Your task to perform on an android device: open app "Gmail" (install if not already installed) and go to login screen Image 0: 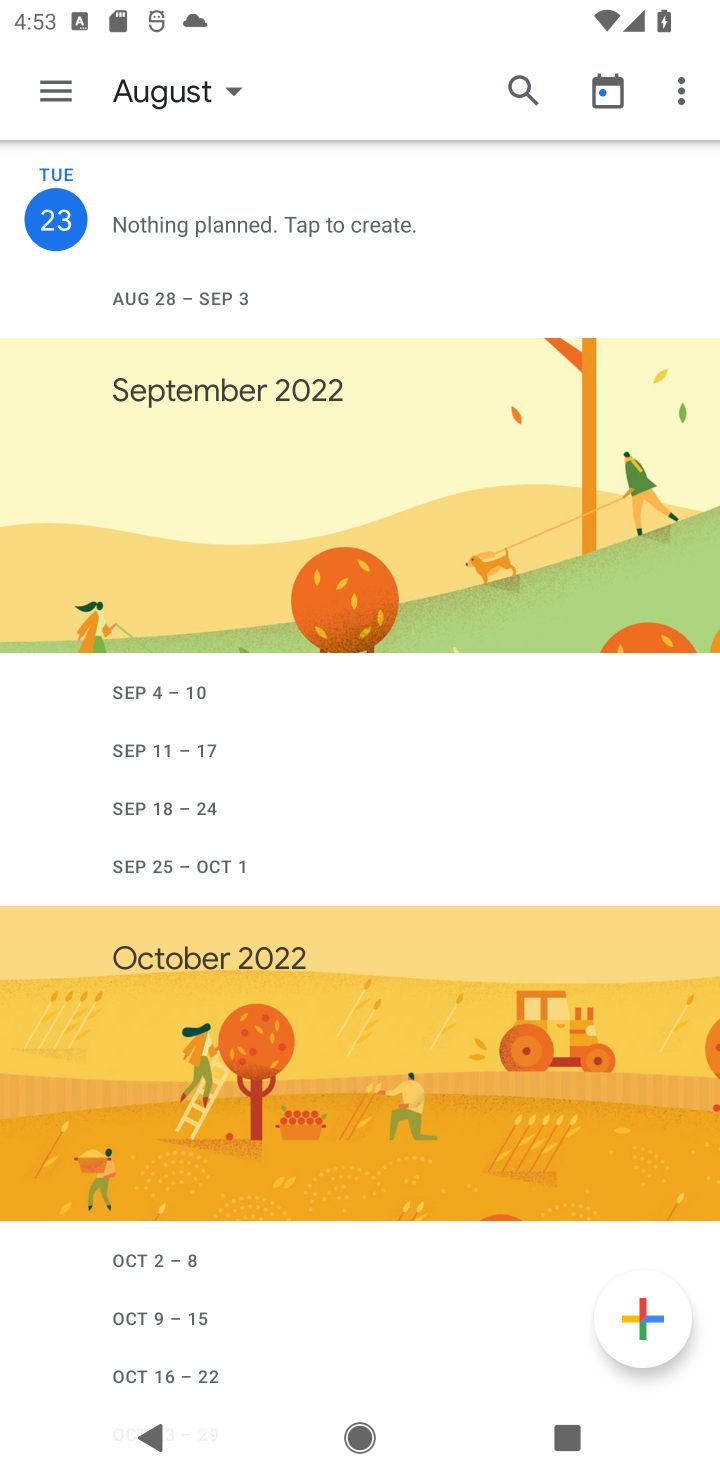
Step 0: press home button
Your task to perform on an android device: open app "Gmail" (install if not already installed) and go to login screen Image 1: 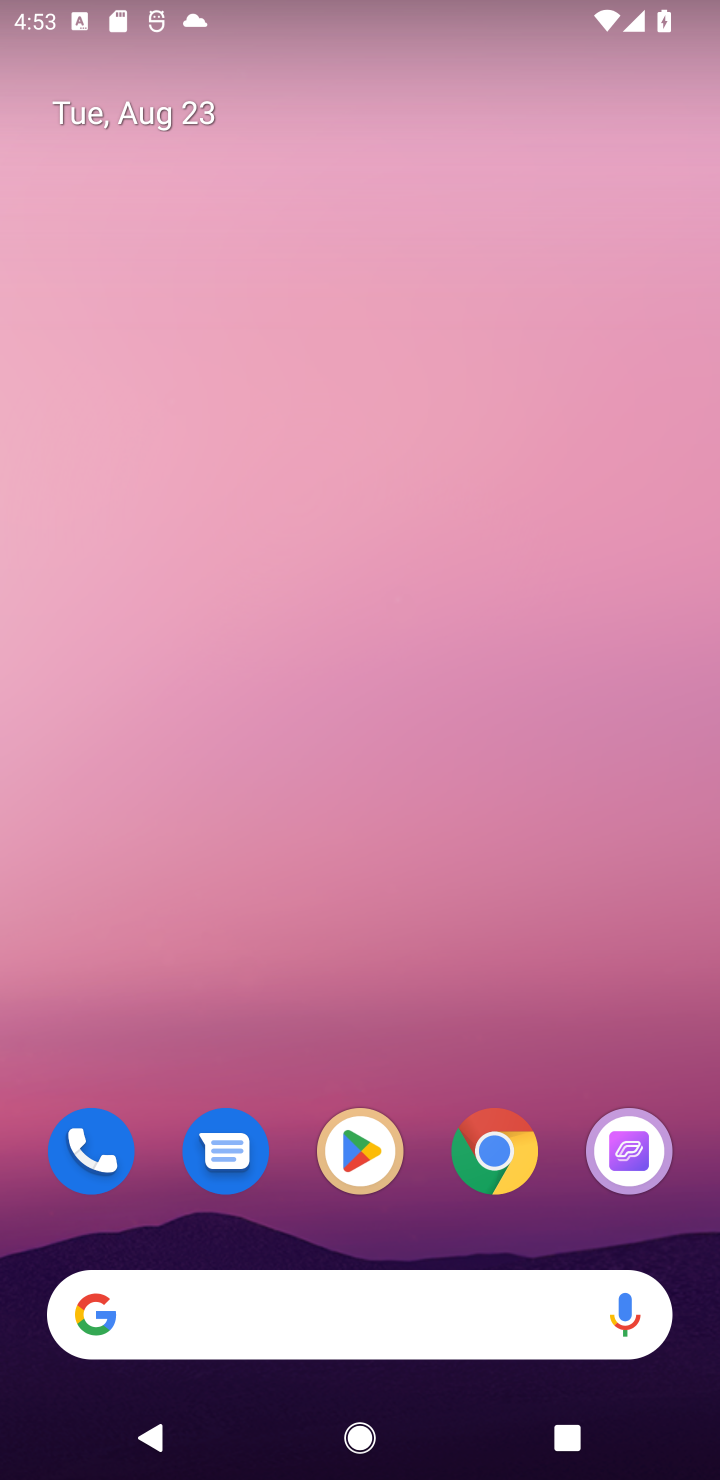
Step 1: click (362, 1162)
Your task to perform on an android device: open app "Gmail" (install if not already installed) and go to login screen Image 2: 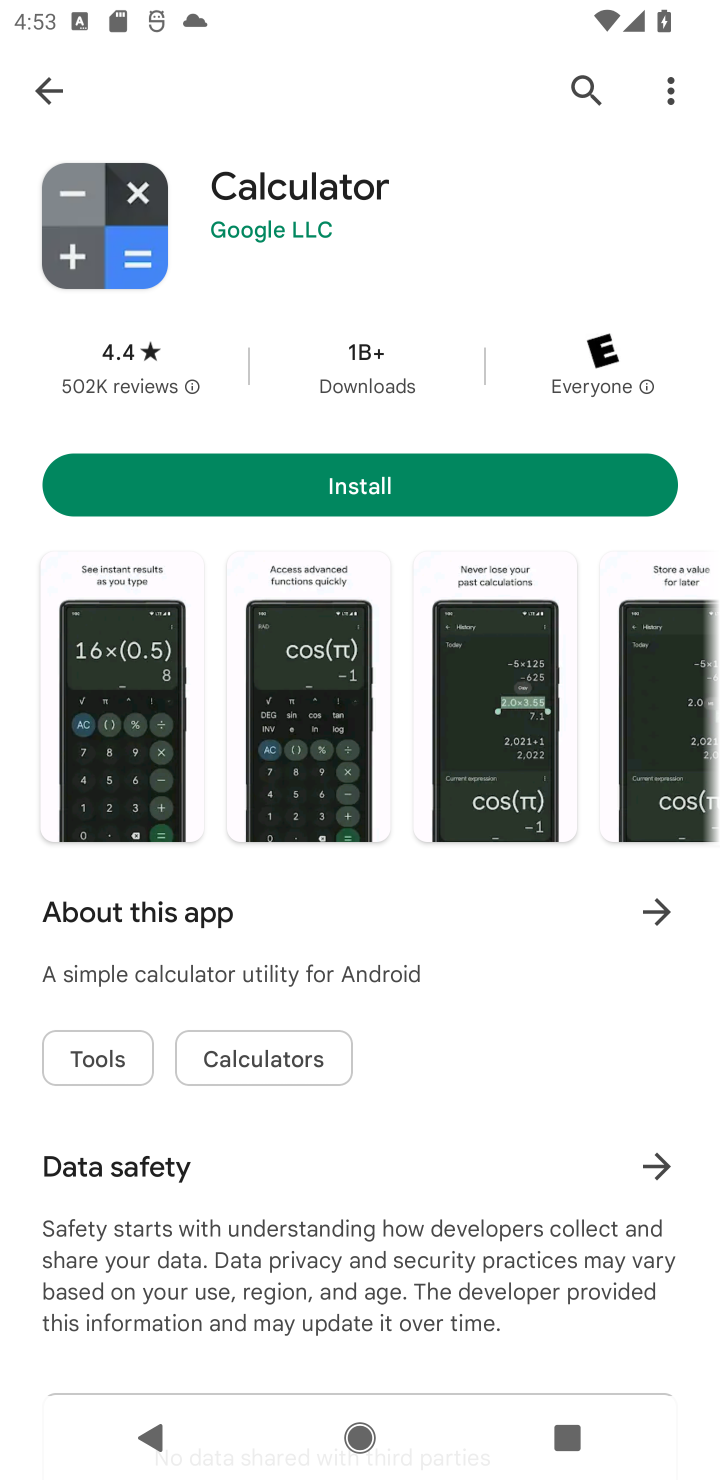
Step 2: click (579, 74)
Your task to perform on an android device: open app "Gmail" (install if not already installed) and go to login screen Image 3: 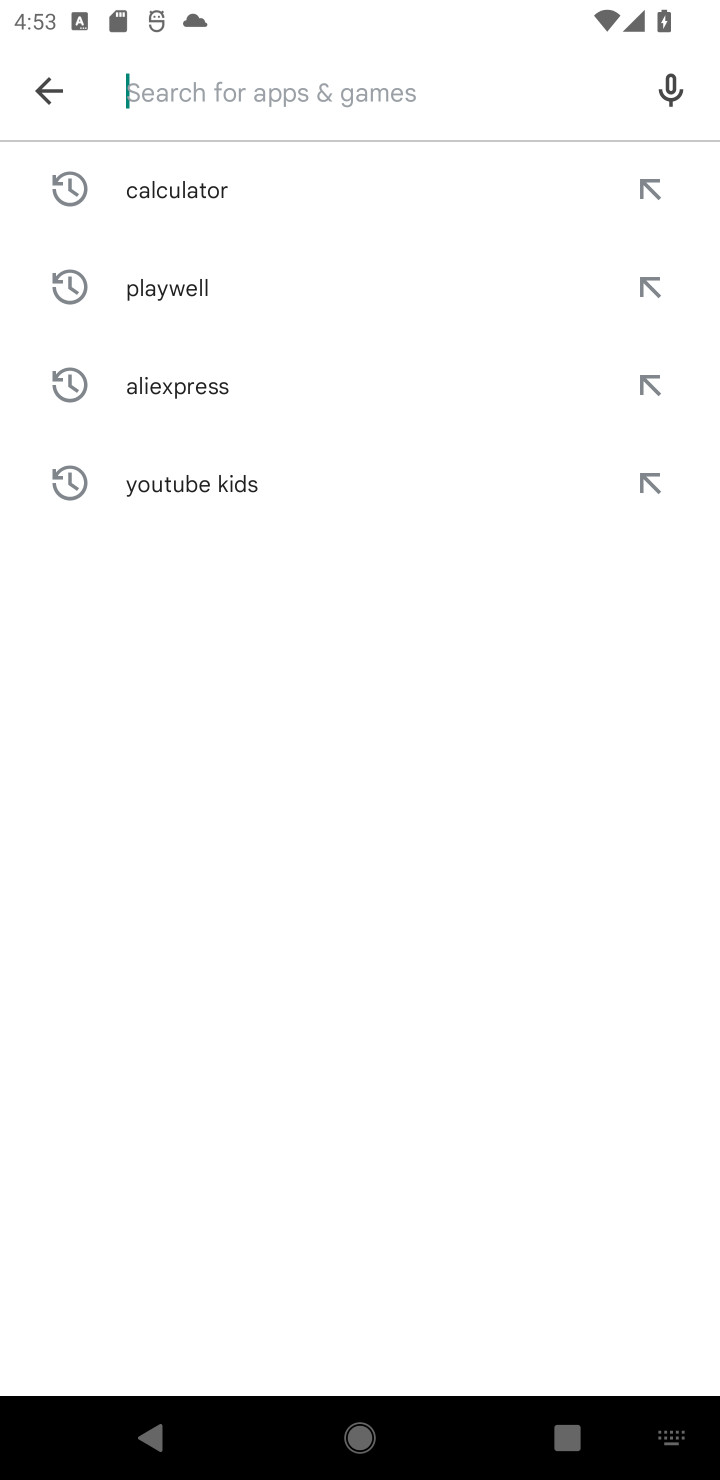
Step 3: type "Gmail"
Your task to perform on an android device: open app "Gmail" (install if not already installed) and go to login screen Image 4: 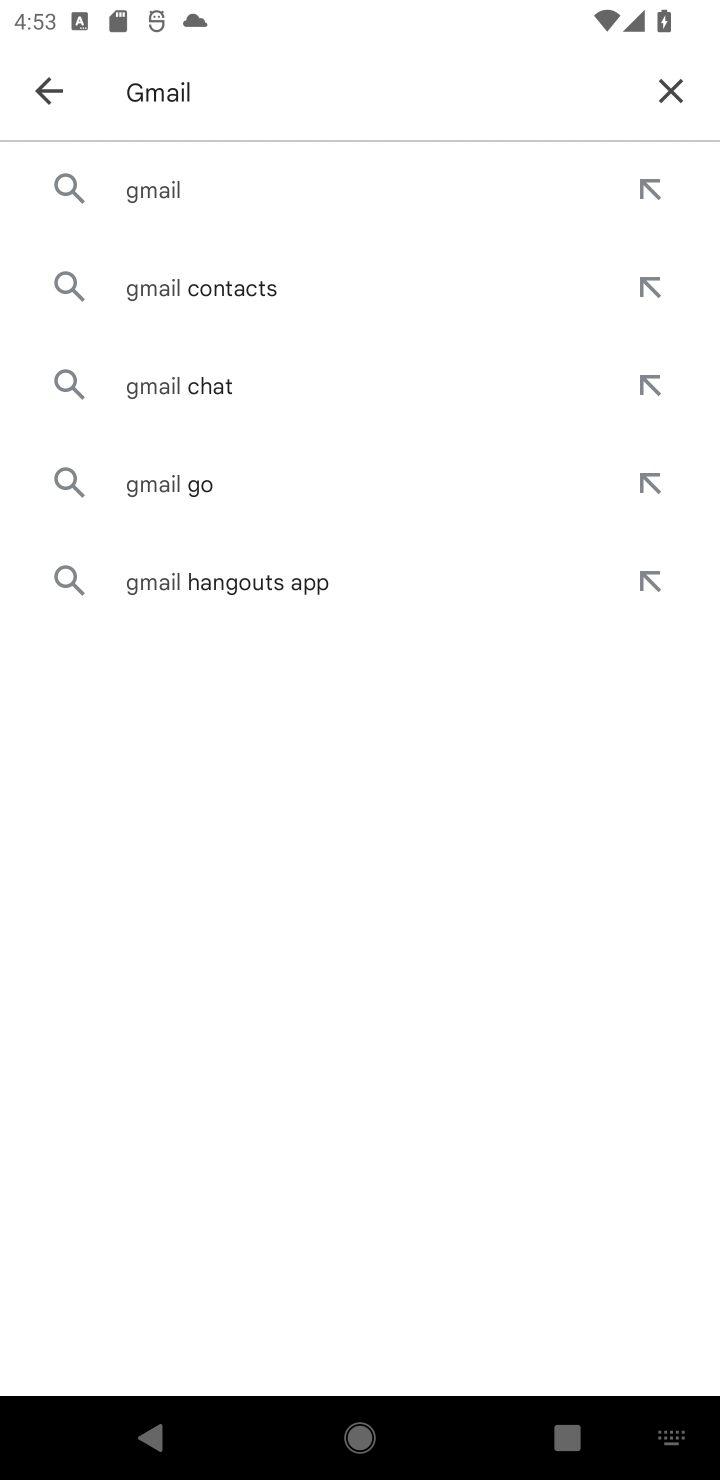
Step 4: click (129, 178)
Your task to perform on an android device: open app "Gmail" (install if not already installed) and go to login screen Image 5: 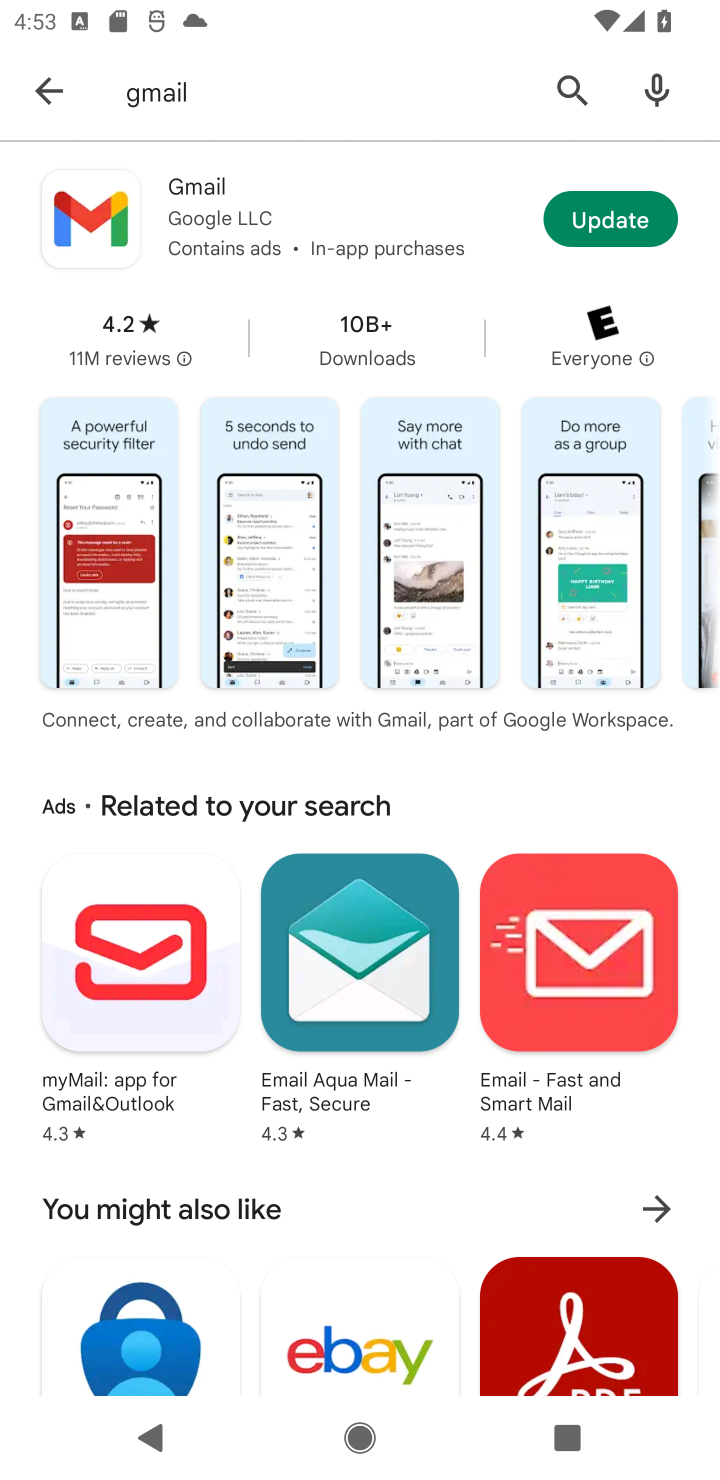
Step 5: click (107, 211)
Your task to perform on an android device: open app "Gmail" (install if not already installed) and go to login screen Image 6: 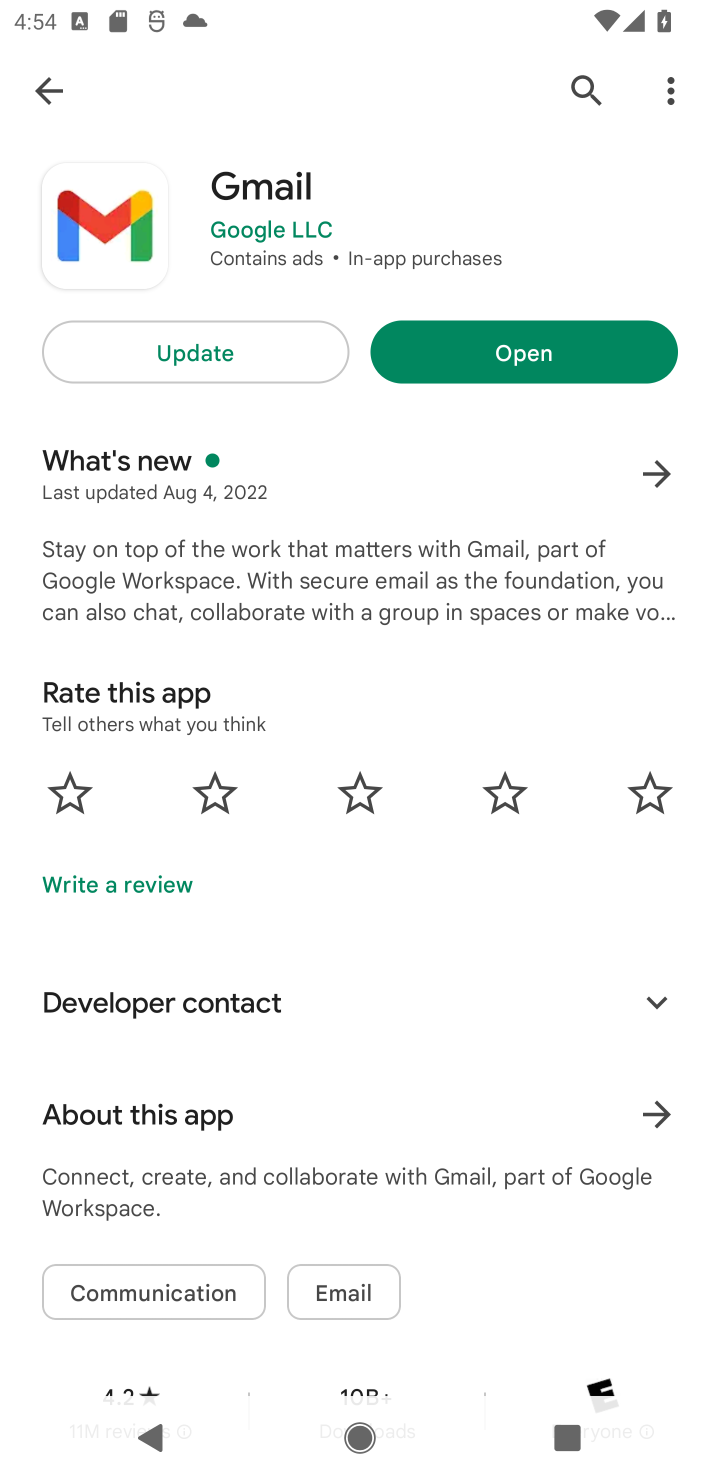
Step 6: click (493, 358)
Your task to perform on an android device: open app "Gmail" (install if not already installed) and go to login screen Image 7: 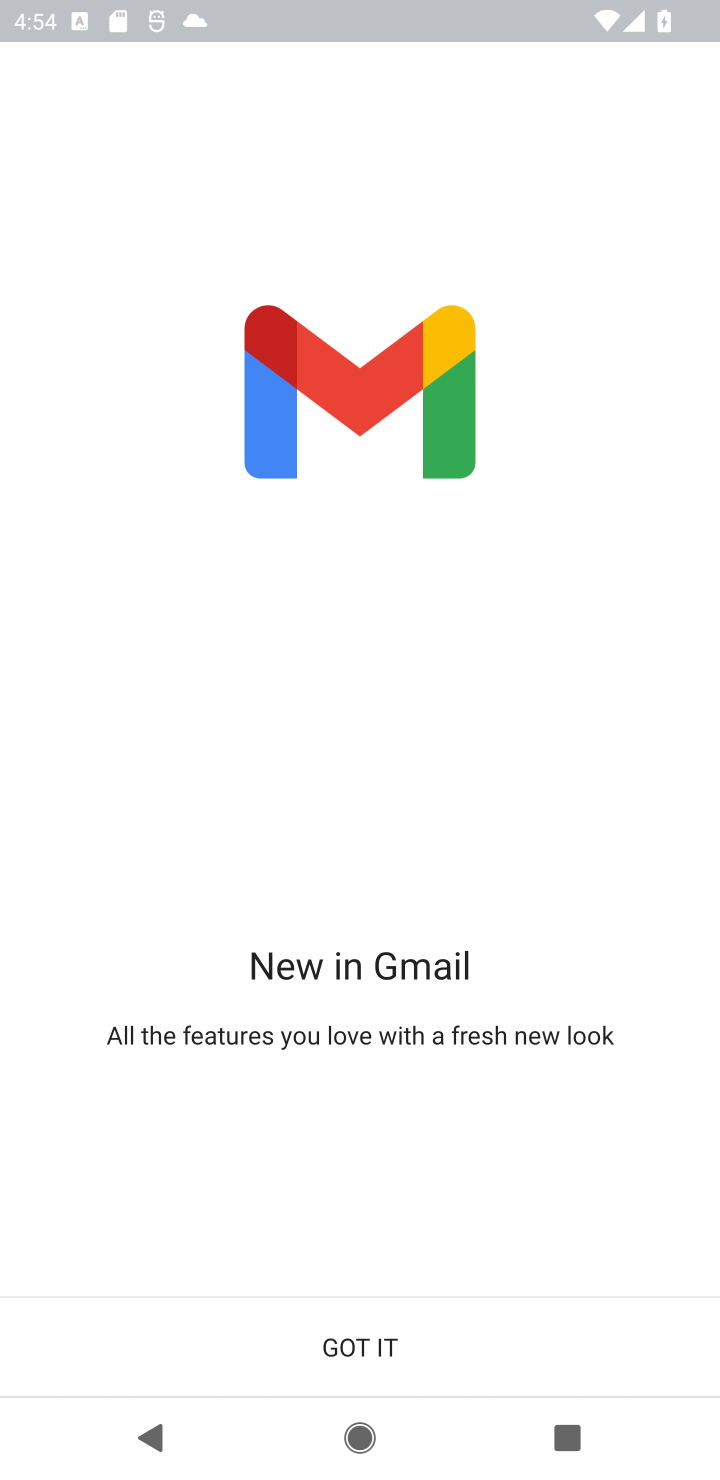
Step 7: click (440, 1353)
Your task to perform on an android device: open app "Gmail" (install if not already installed) and go to login screen Image 8: 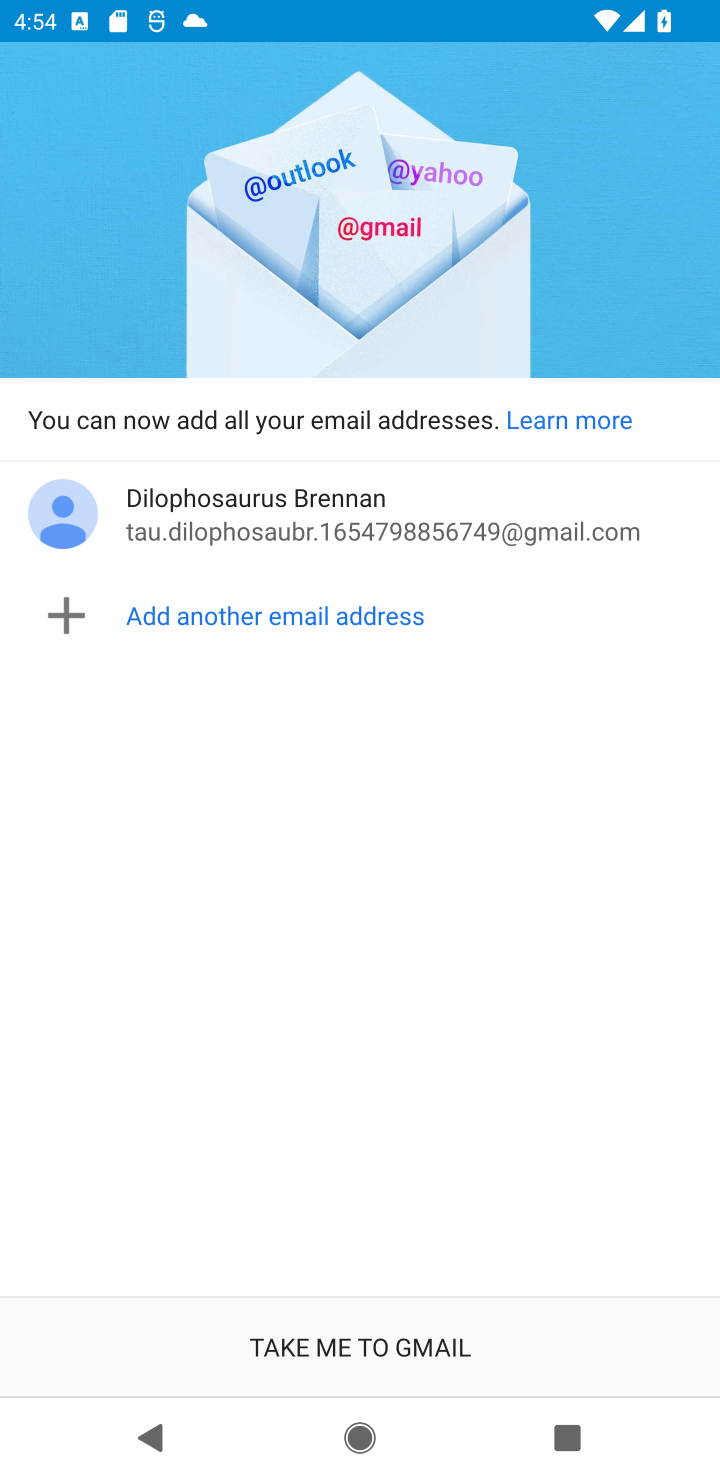
Step 8: task complete